Your task to perform on an android device: Open notification settings Image 0: 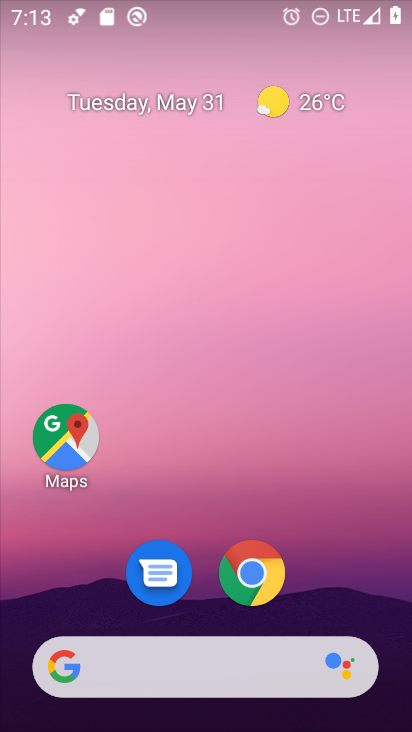
Step 0: drag from (393, 658) to (284, 9)
Your task to perform on an android device: Open notification settings Image 1: 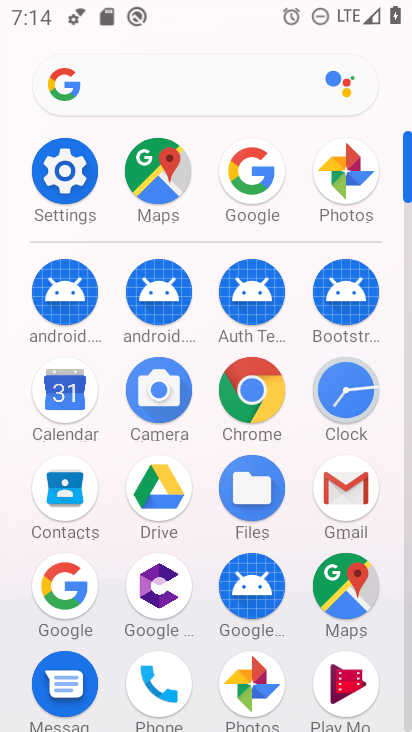
Step 1: click (64, 177)
Your task to perform on an android device: Open notification settings Image 2: 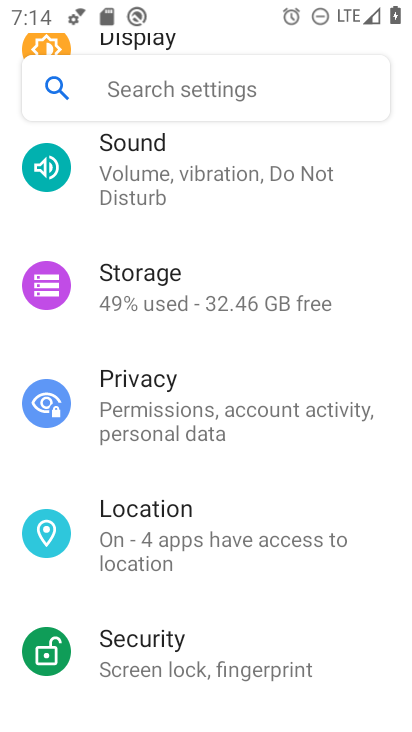
Step 2: drag from (122, 213) to (220, 660)
Your task to perform on an android device: Open notification settings Image 3: 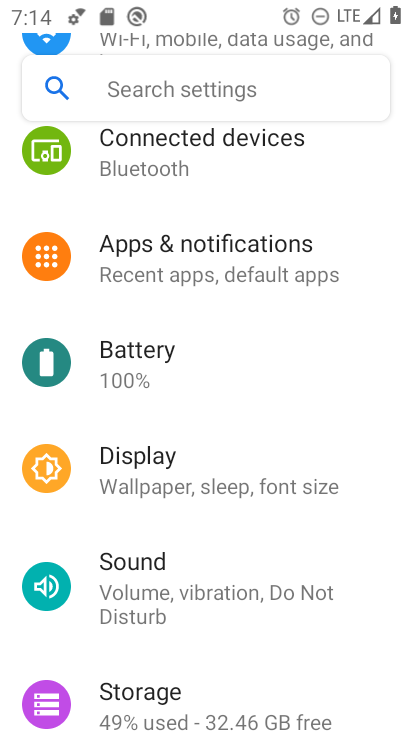
Step 3: click (243, 288)
Your task to perform on an android device: Open notification settings Image 4: 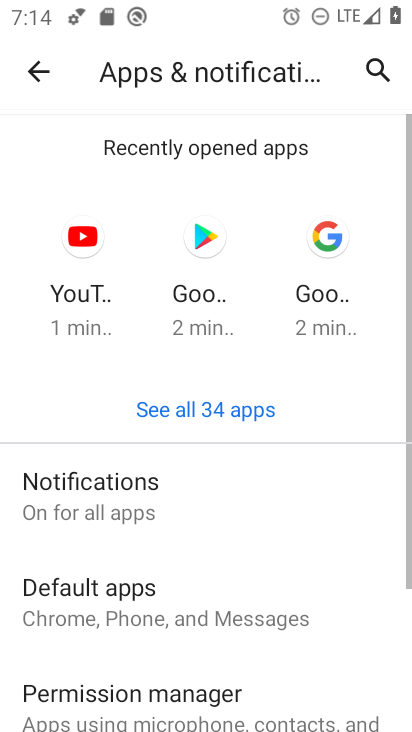
Step 4: click (162, 498)
Your task to perform on an android device: Open notification settings Image 5: 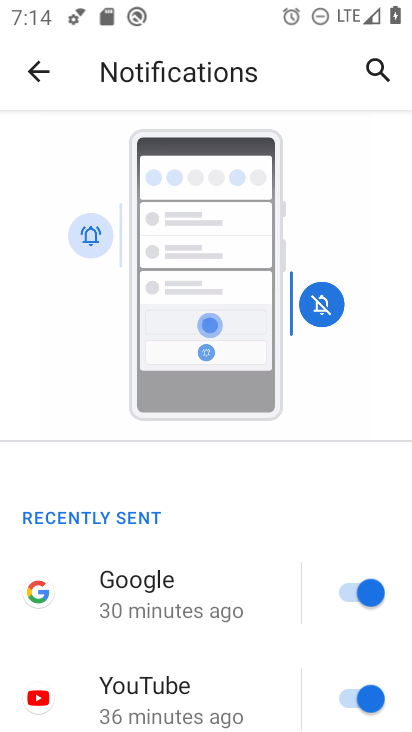
Step 5: task complete